Your task to perform on an android device: Open Android settings Image 0: 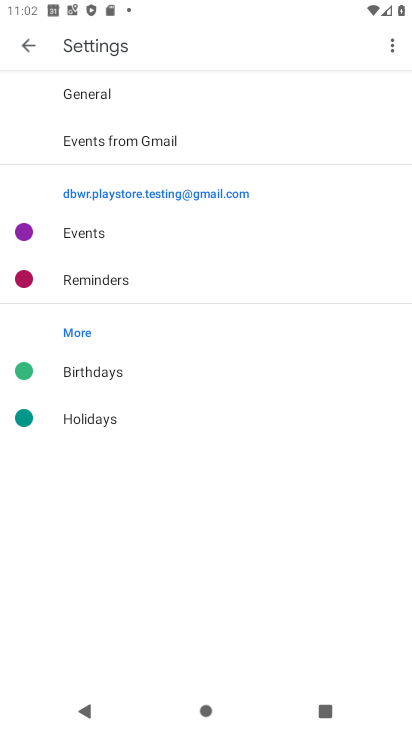
Step 0: press home button
Your task to perform on an android device: Open Android settings Image 1: 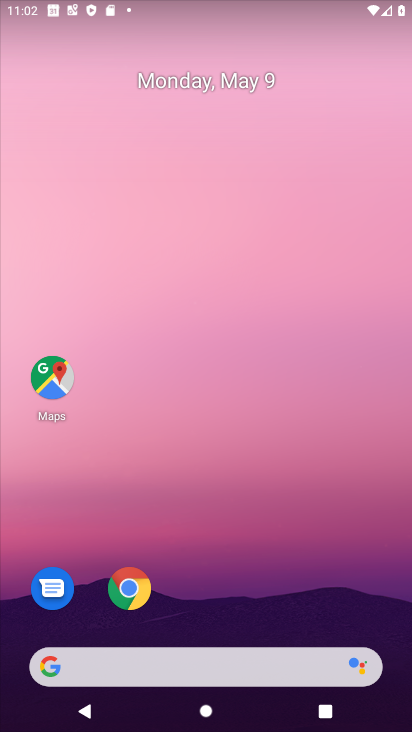
Step 1: drag from (198, 640) to (144, 64)
Your task to perform on an android device: Open Android settings Image 2: 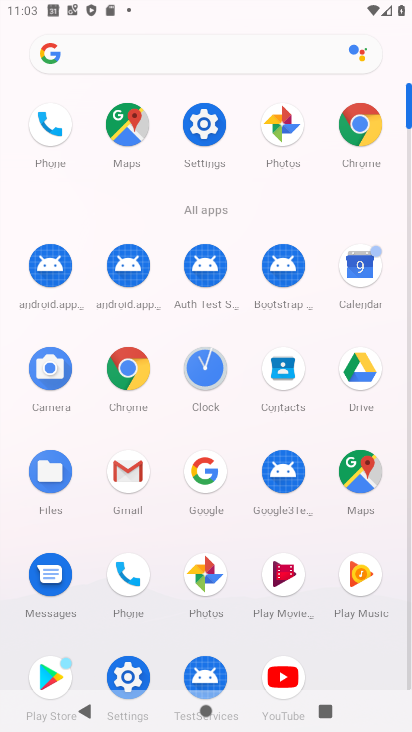
Step 2: click (125, 672)
Your task to perform on an android device: Open Android settings Image 3: 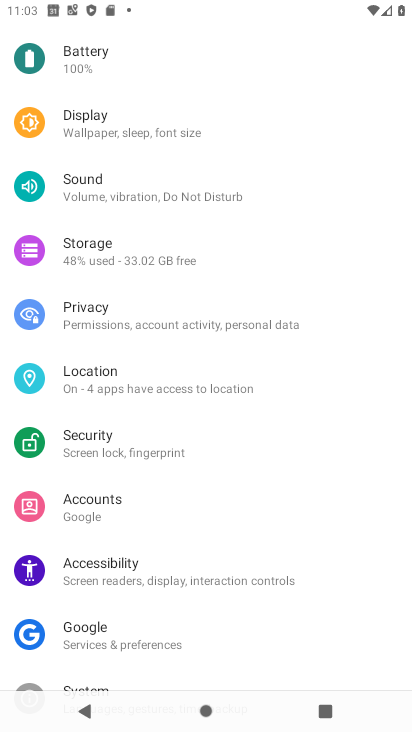
Step 3: drag from (154, 565) to (129, 64)
Your task to perform on an android device: Open Android settings Image 4: 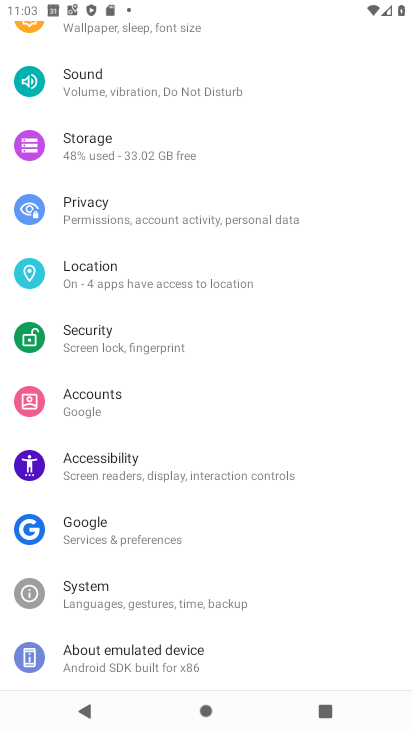
Step 4: click (82, 639)
Your task to perform on an android device: Open Android settings Image 5: 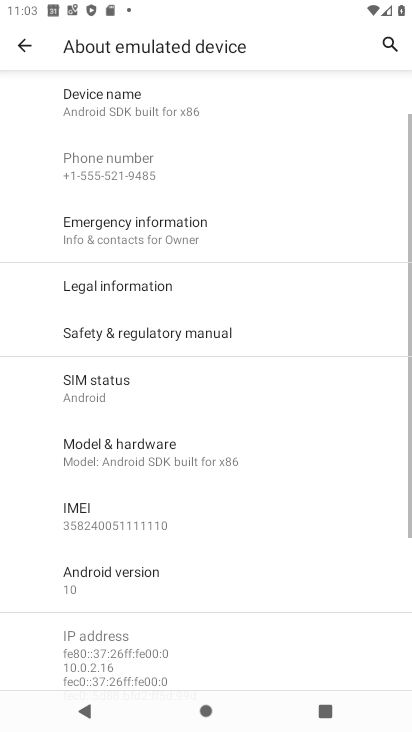
Step 5: click (86, 579)
Your task to perform on an android device: Open Android settings Image 6: 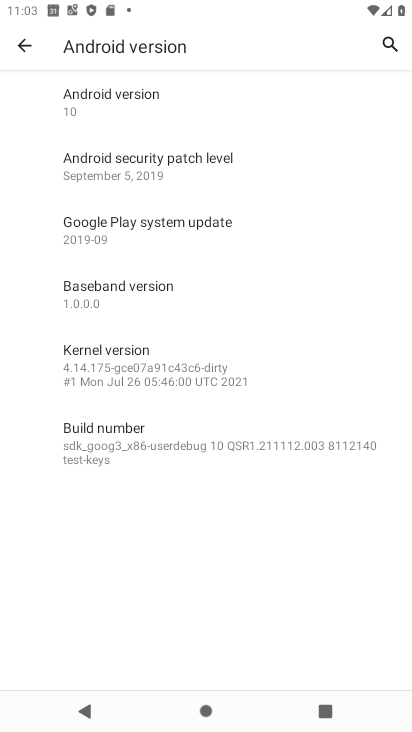
Step 6: click (120, 112)
Your task to perform on an android device: Open Android settings Image 7: 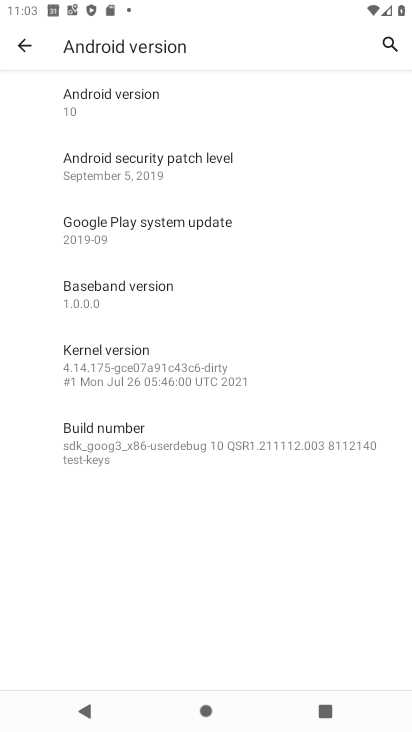
Step 7: task complete